Your task to perform on an android device: Open location settings Image 0: 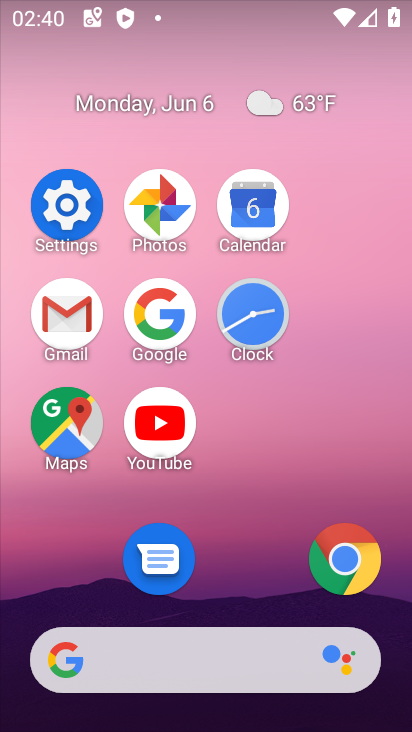
Step 0: click (70, 208)
Your task to perform on an android device: Open location settings Image 1: 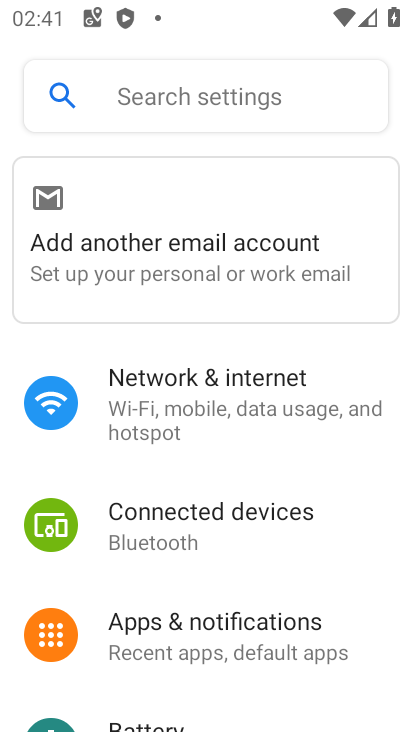
Step 1: drag from (291, 594) to (282, 294)
Your task to perform on an android device: Open location settings Image 2: 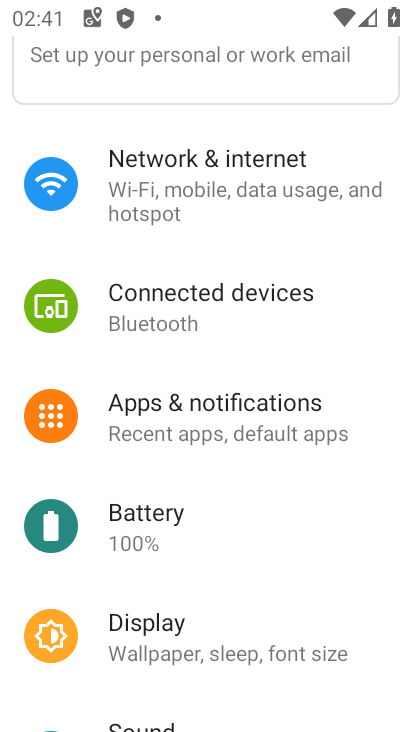
Step 2: drag from (224, 550) to (227, 121)
Your task to perform on an android device: Open location settings Image 3: 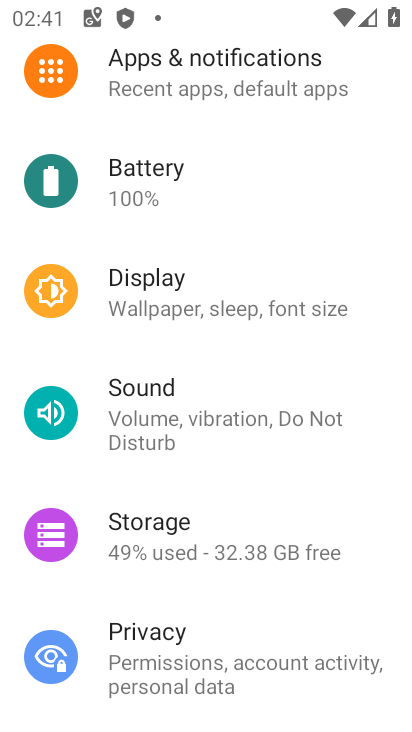
Step 3: drag from (222, 616) to (217, 165)
Your task to perform on an android device: Open location settings Image 4: 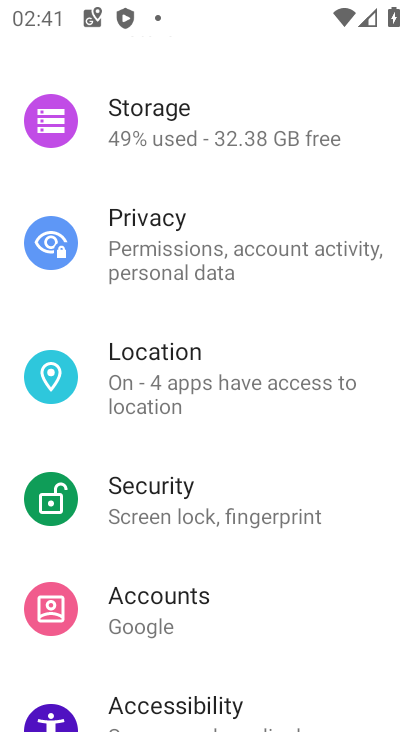
Step 4: click (237, 387)
Your task to perform on an android device: Open location settings Image 5: 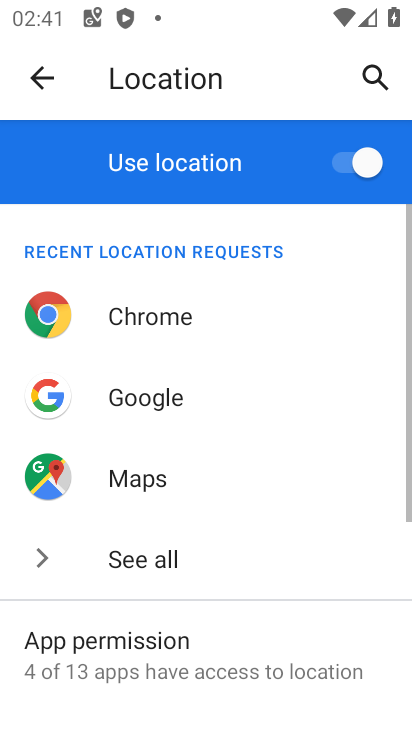
Step 5: task complete